Your task to perform on an android device: refresh tabs in the chrome app Image 0: 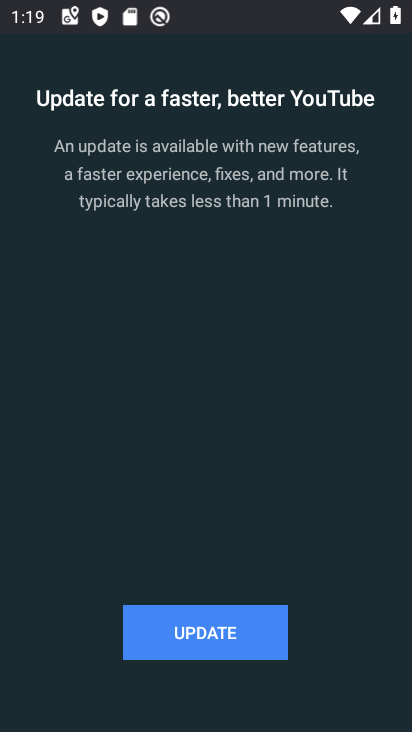
Step 0: press home button
Your task to perform on an android device: refresh tabs in the chrome app Image 1: 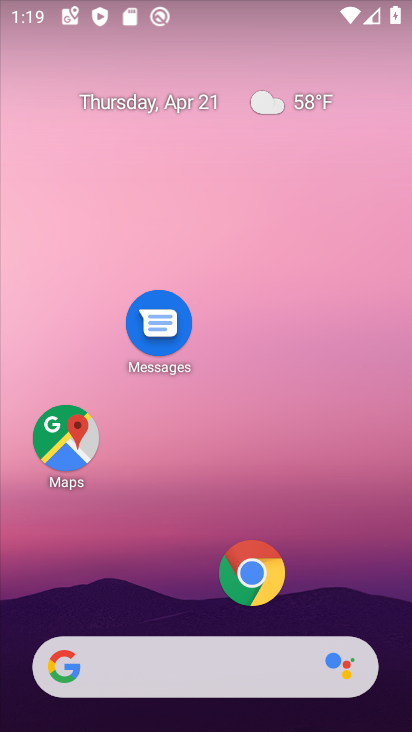
Step 1: drag from (171, 504) to (175, 99)
Your task to perform on an android device: refresh tabs in the chrome app Image 2: 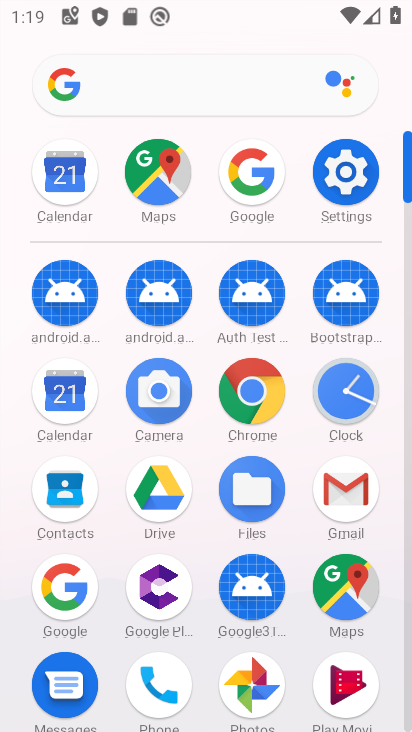
Step 2: click (252, 396)
Your task to perform on an android device: refresh tabs in the chrome app Image 3: 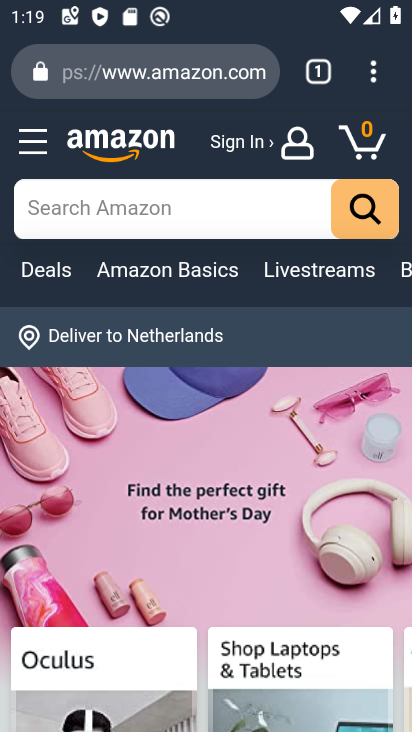
Step 3: click (367, 69)
Your task to perform on an android device: refresh tabs in the chrome app Image 4: 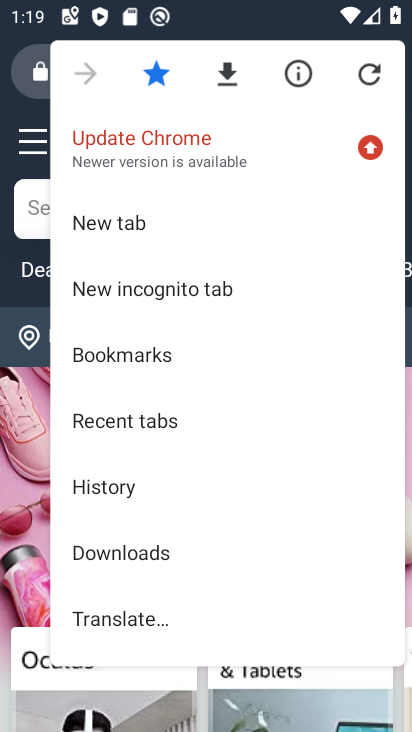
Step 4: click (365, 76)
Your task to perform on an android device: refresh tabs in the chrome app Image 5: 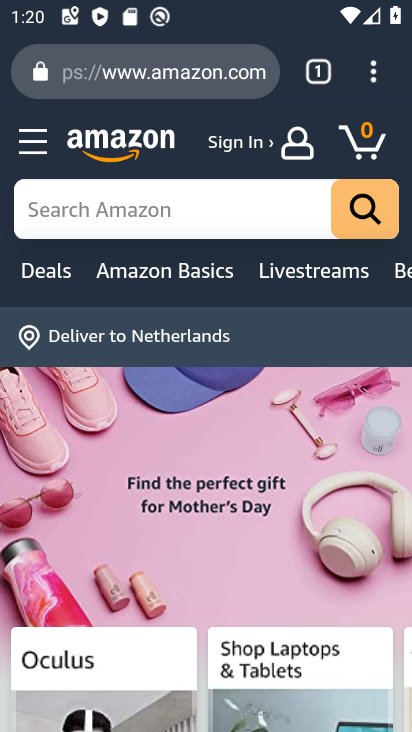
Step 5: task complete